Your task to perform on an android device: turn on translation in the chrome app Image 0: 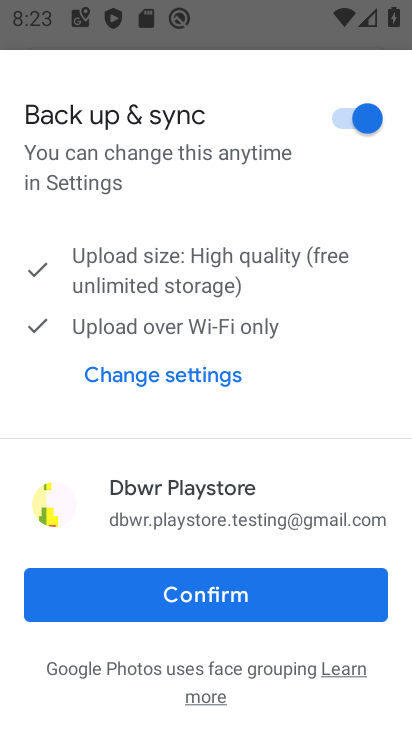
Step 0: press home button
Your task to perform on an android device: turn on translation in the chrome app Image 1: 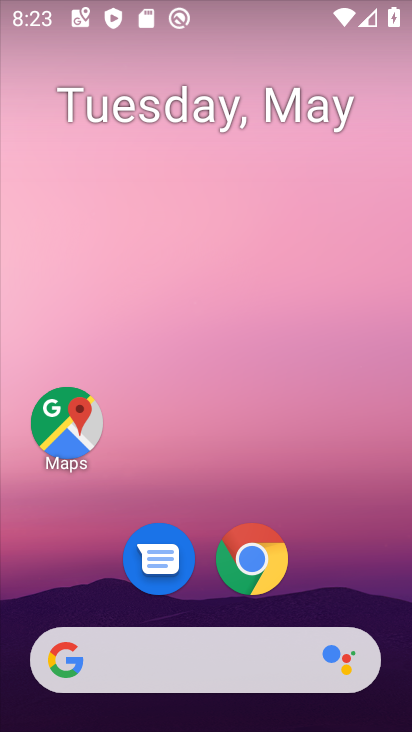
Step 1: click (243, 568)
Your task to perform on an android device: turn on translation in the chrome app Image 2: 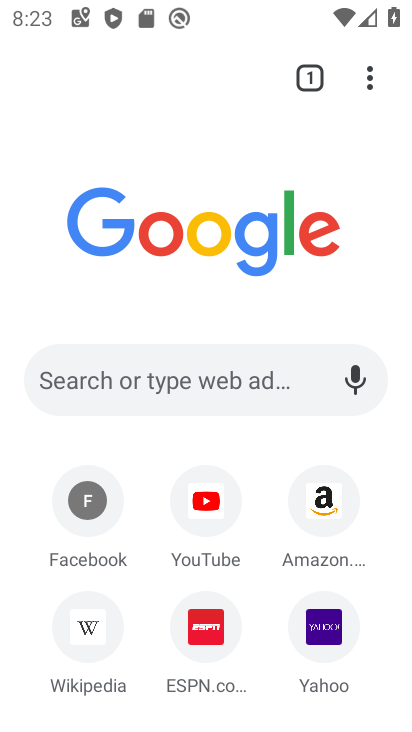
Step 2: drag from (374, 88) to (115, 608)
Your task to perform on an android device: turn on translation in the chrome app Image 3: 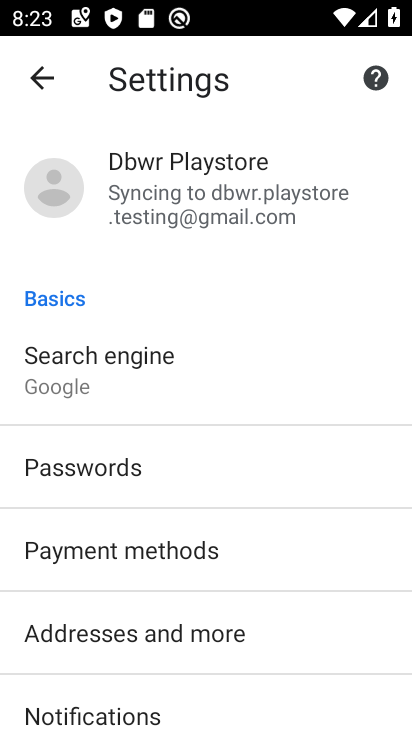
Step 3: drag from (133, 669) to (166, 281)
Your task to perform on an android device: turn on translation in the chrome app Image 4: 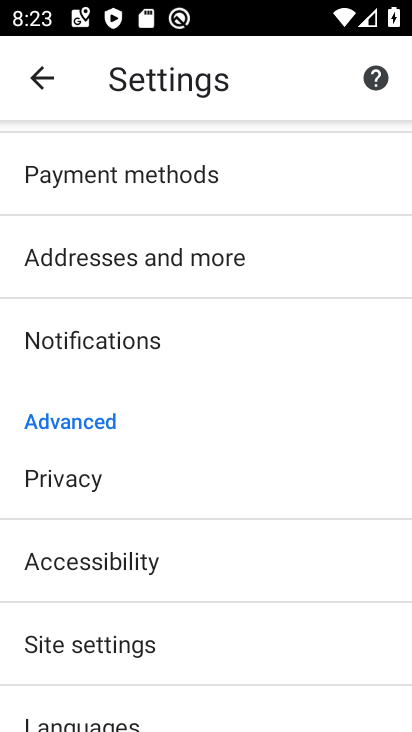
Step 4: click (123, 713)
Your task to perform on an android device: turn on translation in the chrome app Image 5: 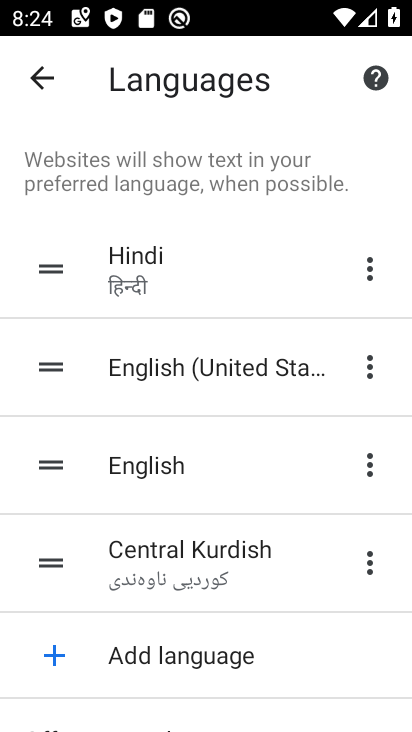
Step 5: task complete